Your task to perform on an android device: Open Youtube and go to the subscriptions tab Image 0: 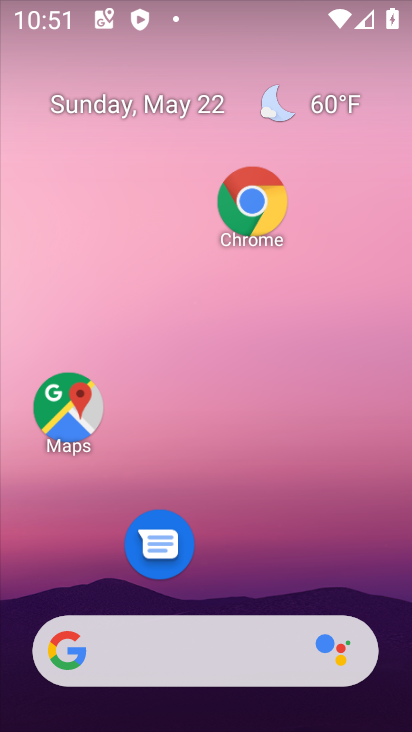
Step 0: drag from (262, 562) to (263, 20)
Your task to perform on an android device: Open Youtube and go to the subscriptions tab Image 1: 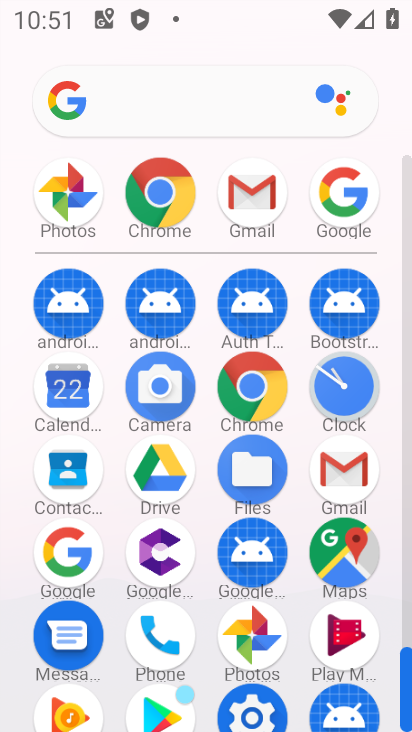
Step 1: drag from (208, 537) to (207, 126)
Your task to perform on an android device: Open Youtube and go to the subscriptions tab Image 2: 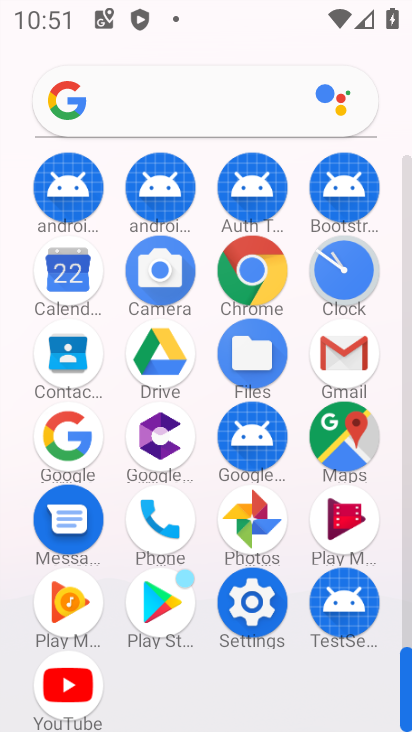
Step 2: click (69, 685)
Your task to perform on an android device: Open Youtube and go to the subscriptions tab Image 3: 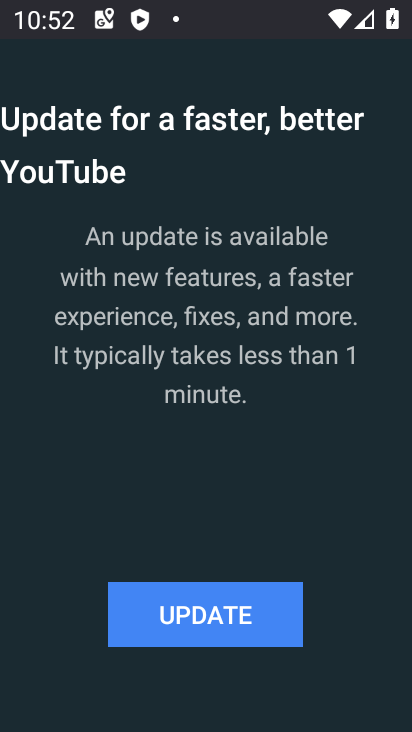
Step 3: click (249, 611)
Your task to perform on an android device: Open Youtube and go to the subscriptions tab Image 4: 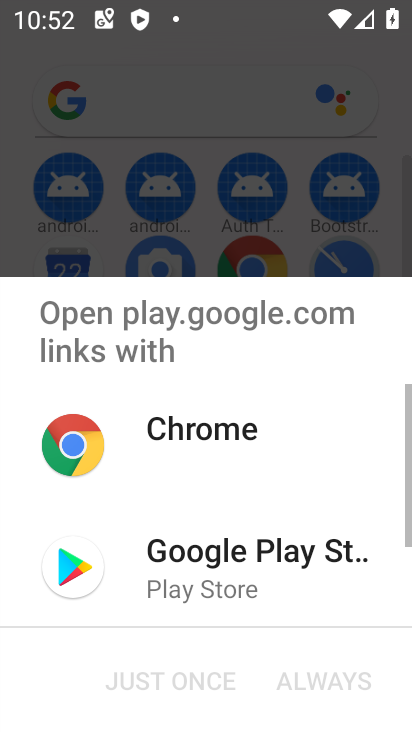
Step 4: click (240, 540)
Your task to perform on an android device: Open Youtube and go to the subscriptions tab Image 5: 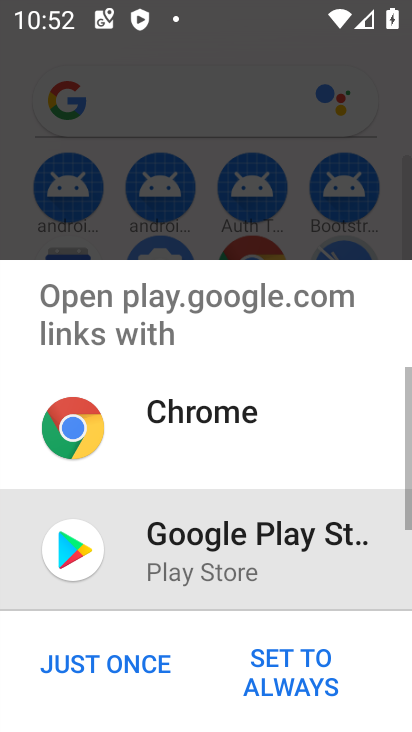
Step 5: click (121, 652)
Your task to perform on an android device: Open Youtube and go to the subscriptions tab Image 6: 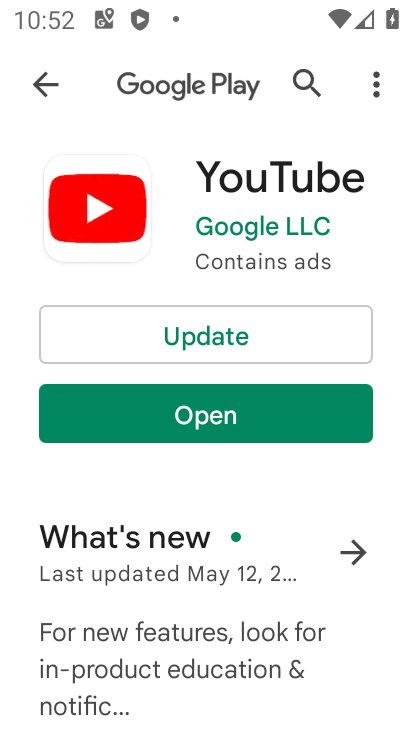
Step 6: click (192, 339)
Your task to perform on an android device: Open Youtube and go to the subscriptions tab Image 7: 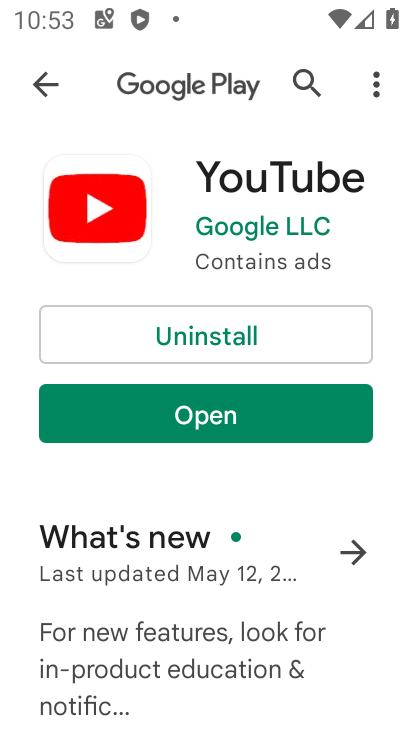
Step 7: click (217, 425)
Your task to perform on an android device: Open Youtube and go to the subscriptions tab Image 8: 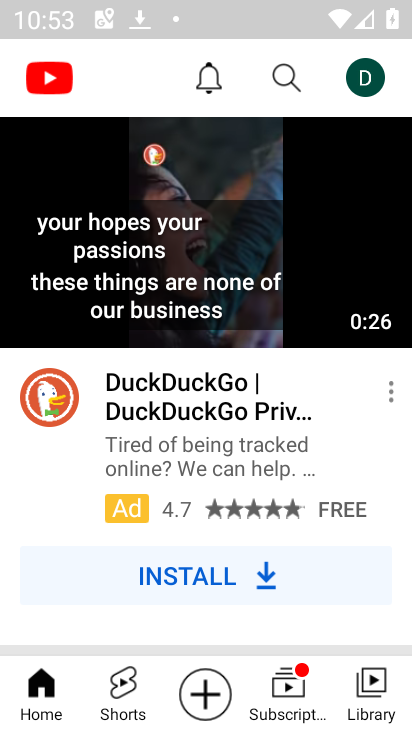
Step 8: click (275, 704)
Your task to perform on an android device: Open Youtube and go to the subscriptions tab Image 9: 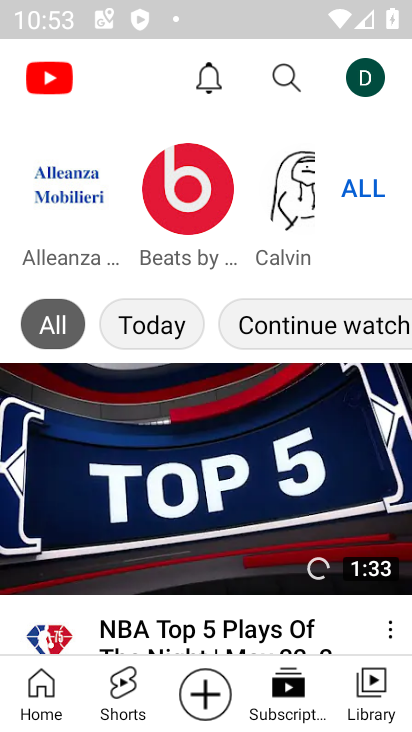
Step 9: task complete